Your task to perform on an android device: open wifi settings Image 0: 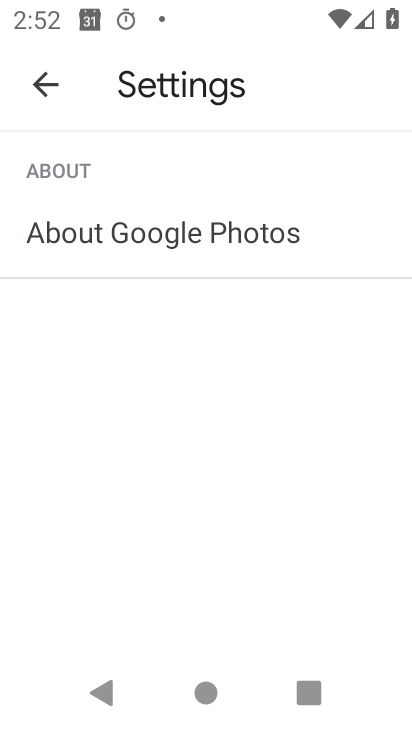
Step 0: press home button
Your task to perform on an android device: open wifi settings Image 1: 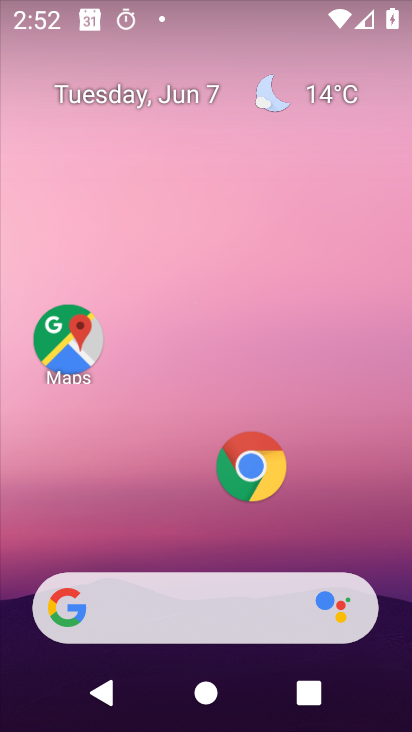
Step 1: drag from (229, 18) to (209, 466)
Your task to perform on an android device: open wifi settings Image 2: 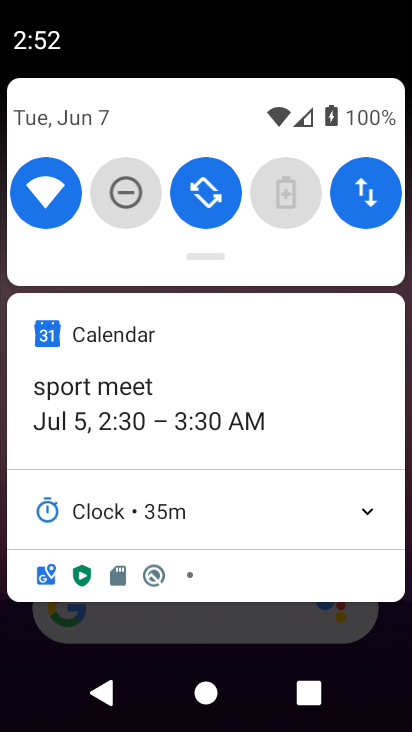
Step 2: drag from (226, 261) to (200, 730)
Your task to perform on an android device: open wifi settings Image 3: 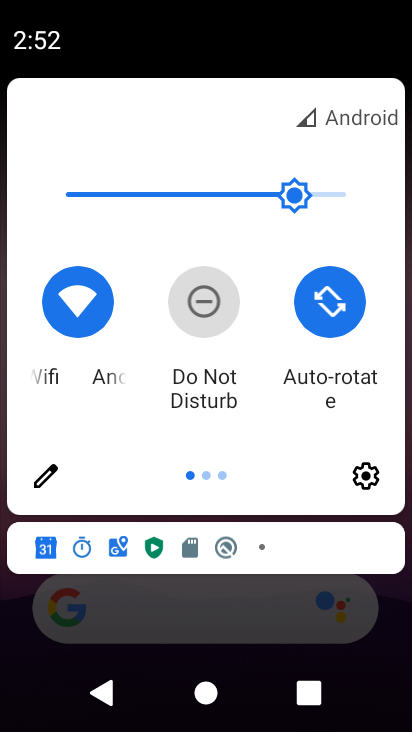
Step 3: click (374, 486)
Your task to perform on an android device: open wifi settings Image 4: 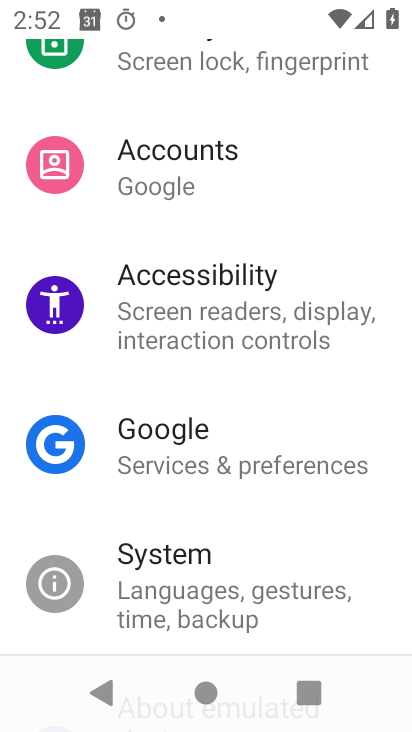
Step 4: drag from (303, 123) to (315, 536)
Your task to perform on an android device: open wifi settings Image 5: 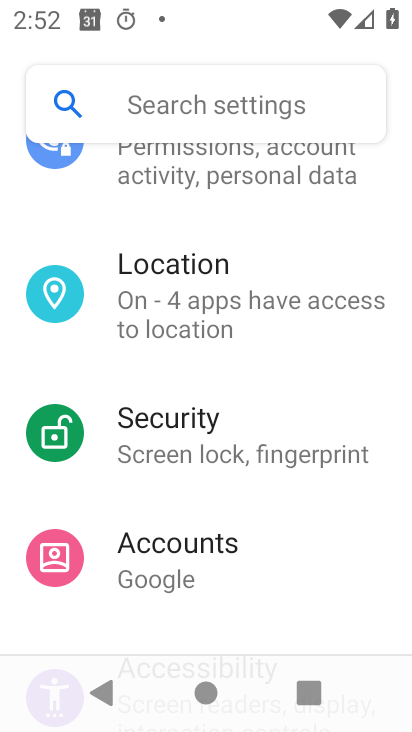
Step 5: drag from (341, 242) to (281, 675)
Your task to perform on an android device: open wifi settings Image 6: 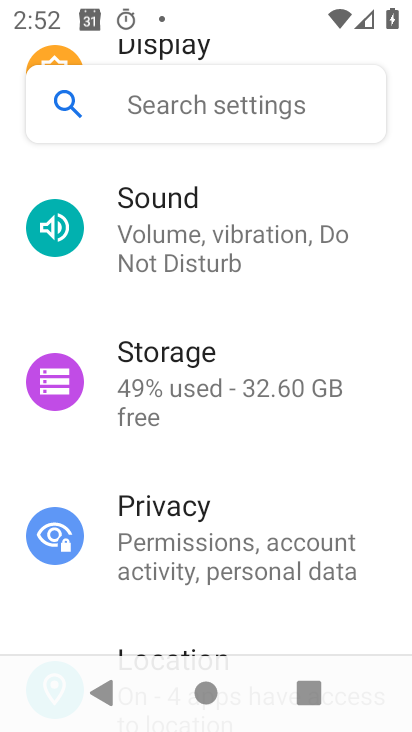
Step 6: drag from (279, 219) to (268, 560)
Your task to perform on an android device: open wifi settings Image 7: 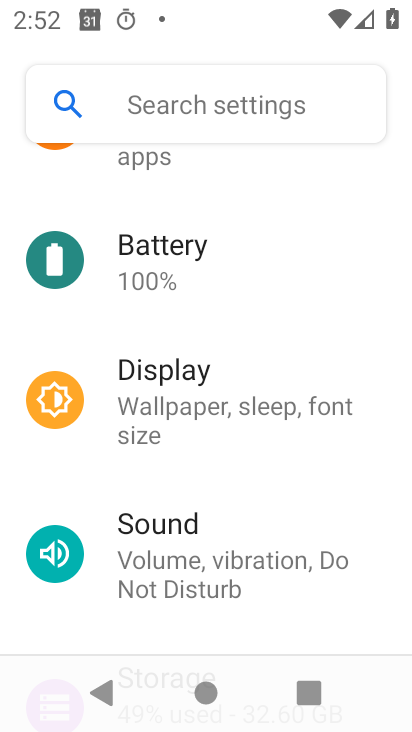
Step 7: drag from (253, 238) to (275, 528)
Your task to perform on an android device: open wifi settings Image 8: 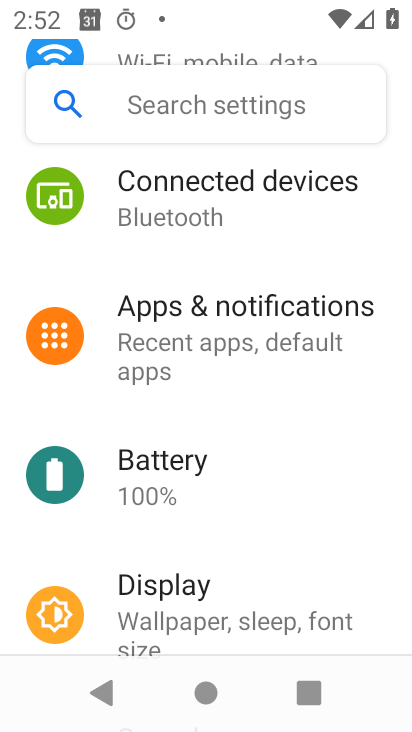
Step 8: drag from (275, 242) to (283, 648)
Your task to perform on an android device: open wifi settings Image 9: 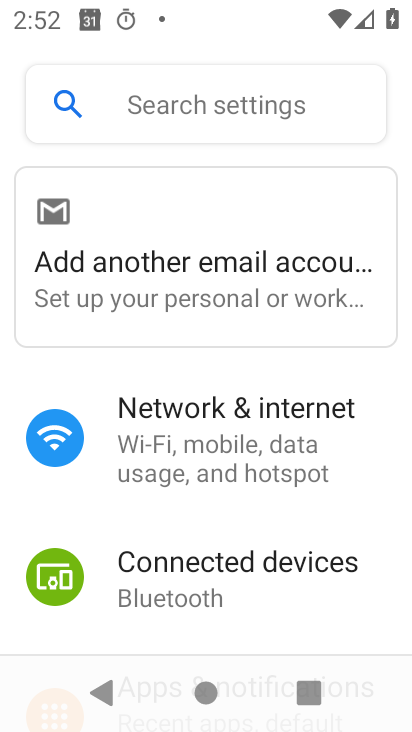
Step 9: click (298, 442)
Your task to perform on an android device: open wifi settings Image 10: 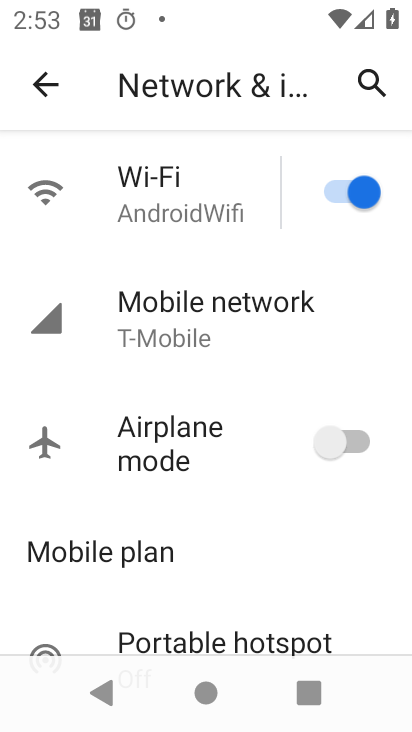
Step 10: task complete